Your task to perform on an android device: check storage Image 0: 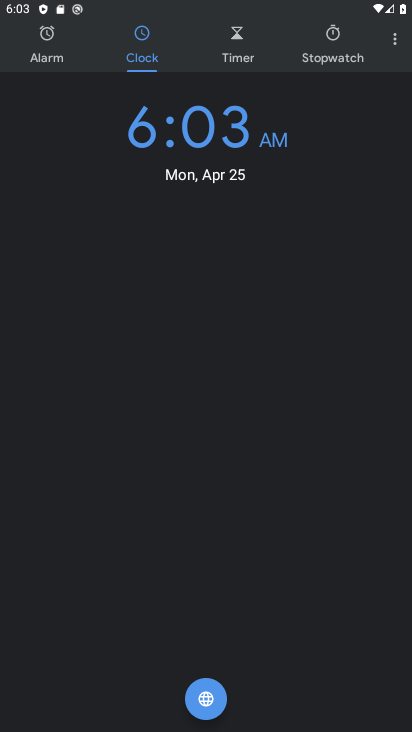
Step 0: press home button
Your task to perform on an android device: check storage Image 1: 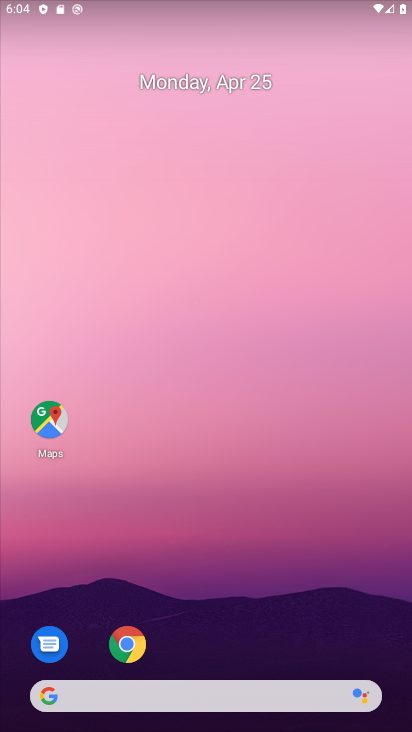
Step 1: drag from (250, 420) to (224, 193)
Your task to perform on an android device: check storage Image 2: 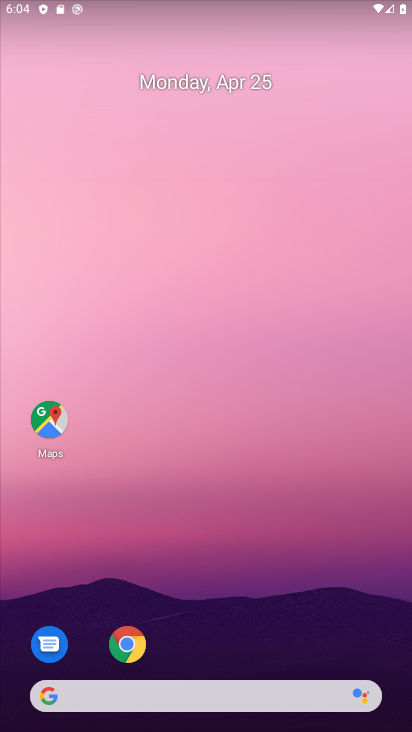
Step 2: drag from (296, 414) to (267, 10)
Your task to perform on an android device: check storage Image 3: 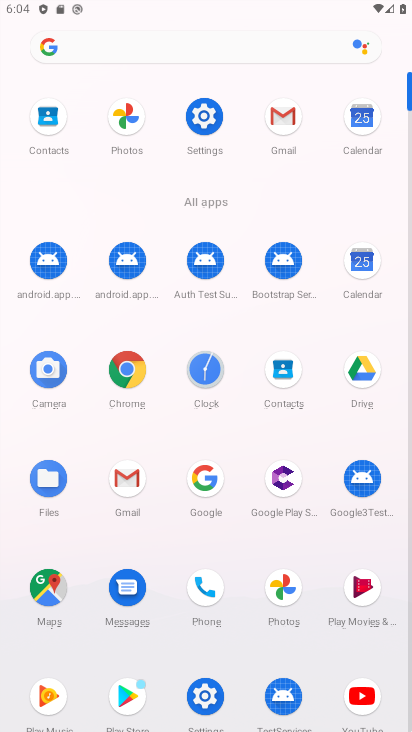
Step 3: click (206, 110)
Your task to perform on an android device: check storage Image 4: 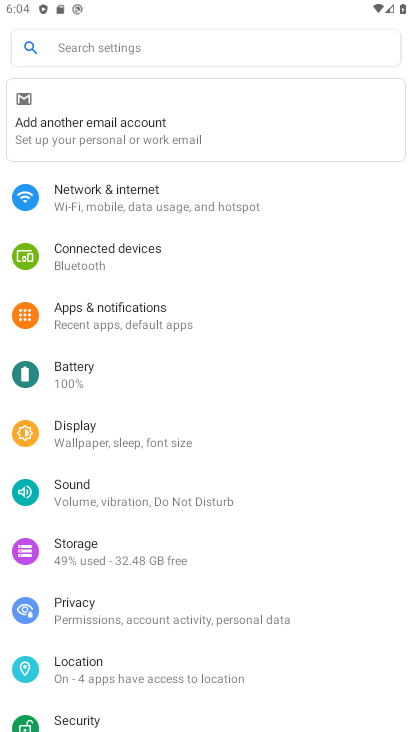
Step 4: click (107, 554)
Your task to perform on an android device: check storage Image 5: 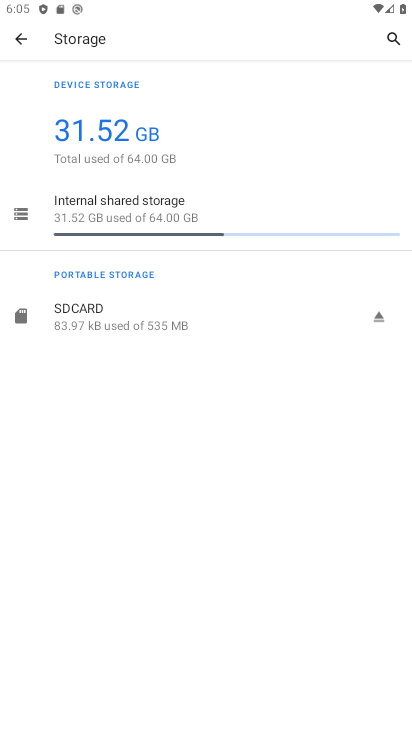
Step 5: task complete